Your task to perform on an android device: Show me popular games on the Play Store Image 0: 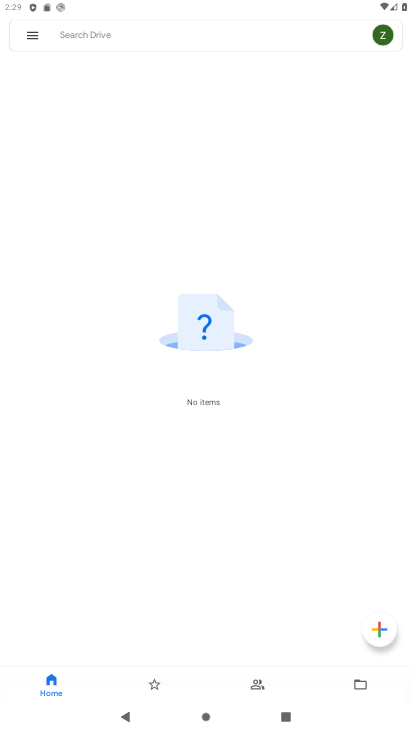
Step 0: press home button
Your task to perform on an android device: Show me popular games on the Play Store Image 1: 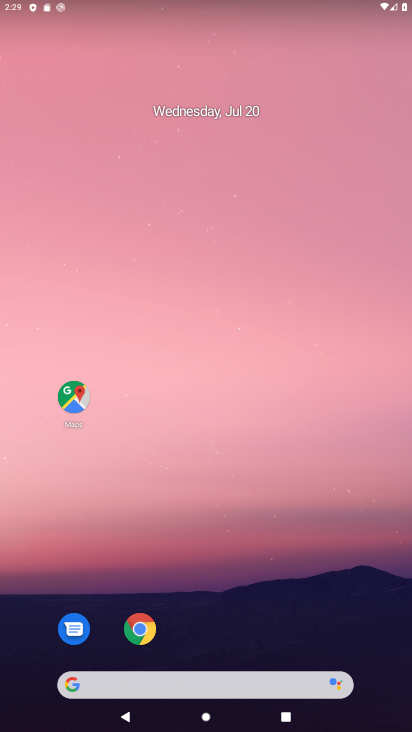
Step 1: drag from (253, 622) to (299, 180)
Your task to perform on an android device: Show me popular games on the Play Store Image 2: 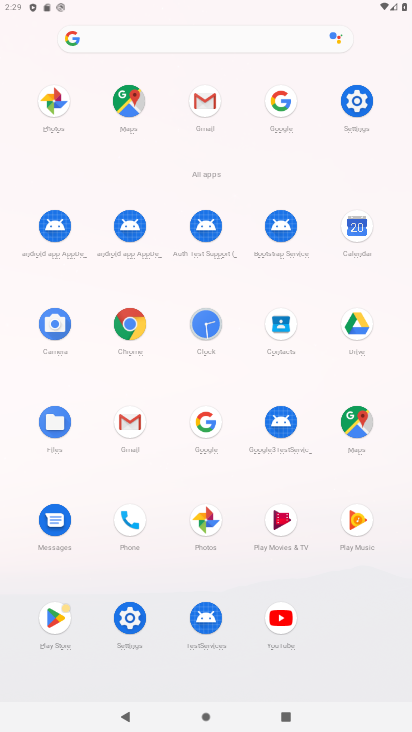
Step 2: click (59, 618)
Your task to perform on an android device: Show me popular games on the Play Store Image 3: 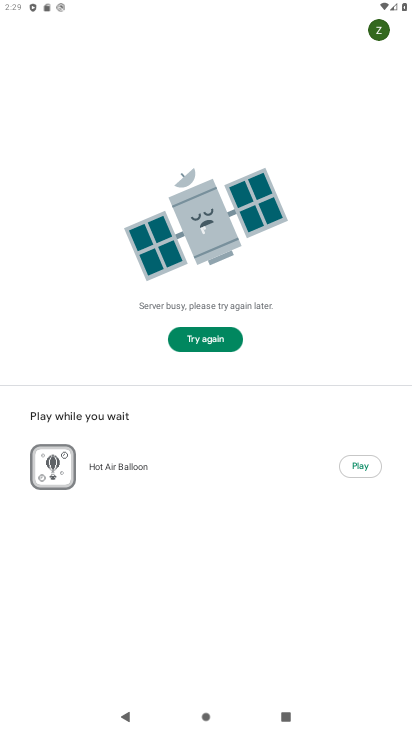
Step 3: click (61, 608)
Your task to perform on an android device: Show me popular games on the Play Store Image 4: 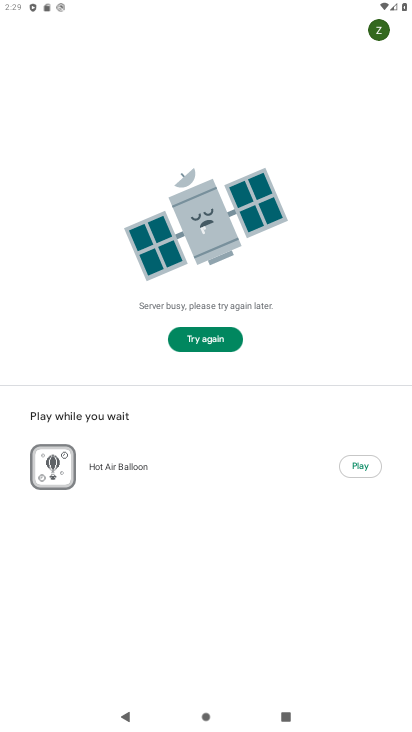
Step 4: task complete